Your task to perform on an android device: Go to Yahoo.com Image 0: 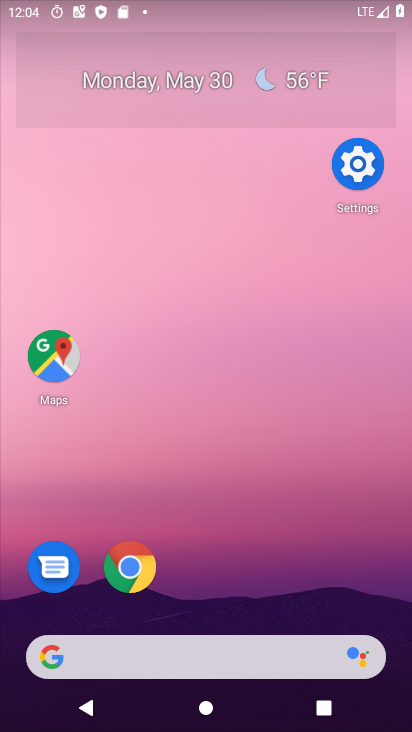
Step 0: drag from (214, 457) to (217, 156)
Your task to perform on an android device: Go to Yahoo.com Image 1: 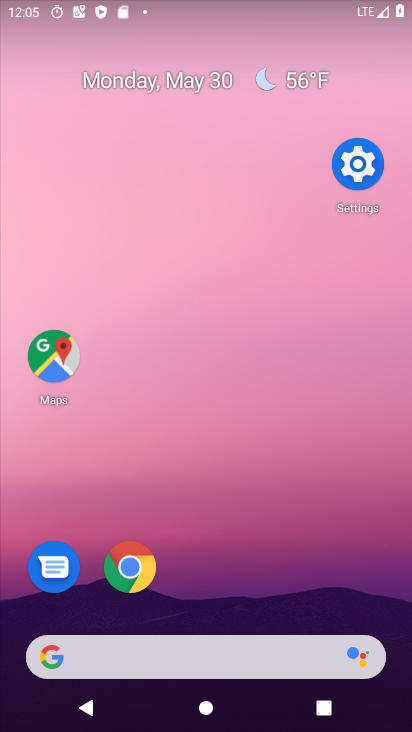
Step 1: drag from (258, 589) to (245, 113)
Your task to perform on an android device: Go to Yahoo.com Image 2: 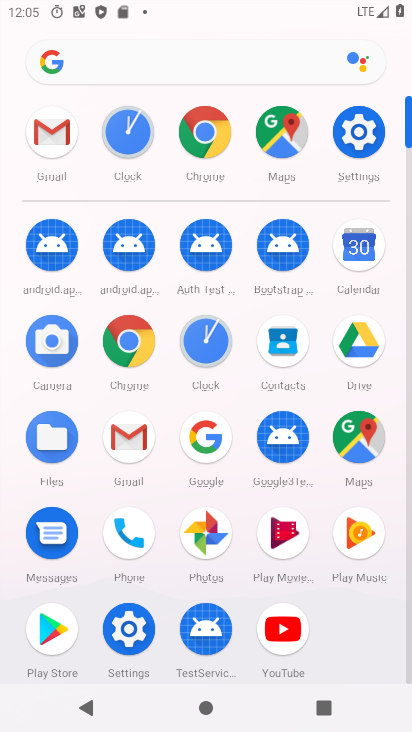
Step 2: click (209, 152)
Your task to perform on an android device: Go to Yahoo.com Image 3: 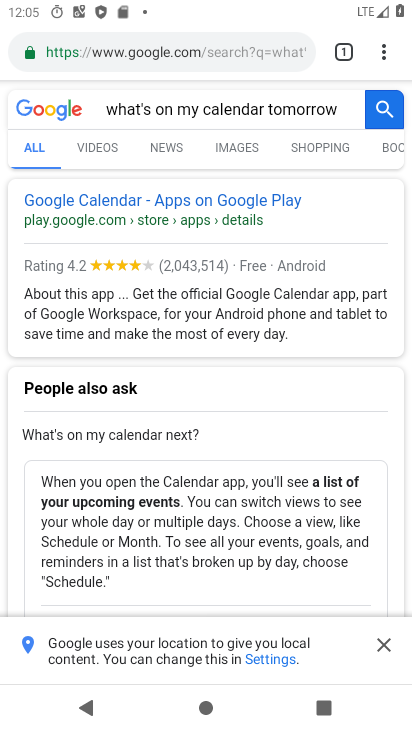
Step 3: click (335, 46)
Your task to perform on an android device: Go to Yahoo.com Image 4: 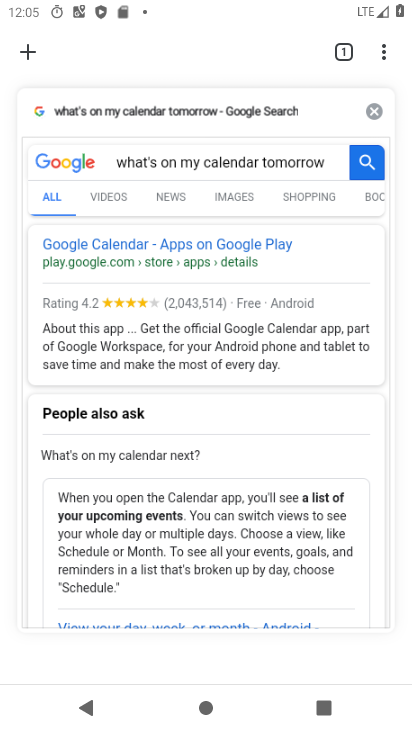
Step 4: click (25, 47)
Your task to perform on an android device: Go to Yahoo.com Image 5: 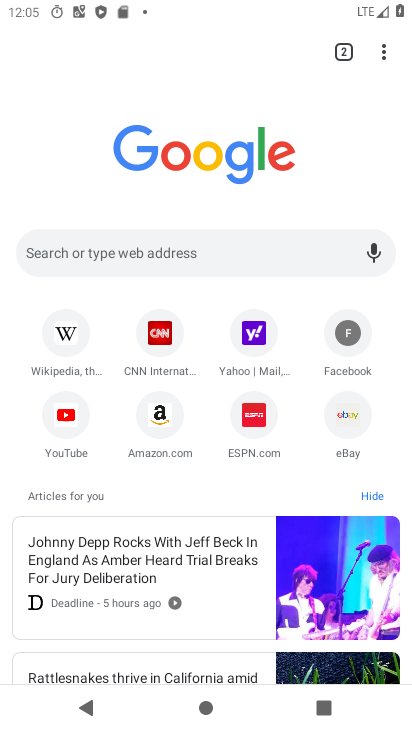
Step 5: click (275, 336)
Your task to perform on an android device: Go to Yahoo.com Image 6: 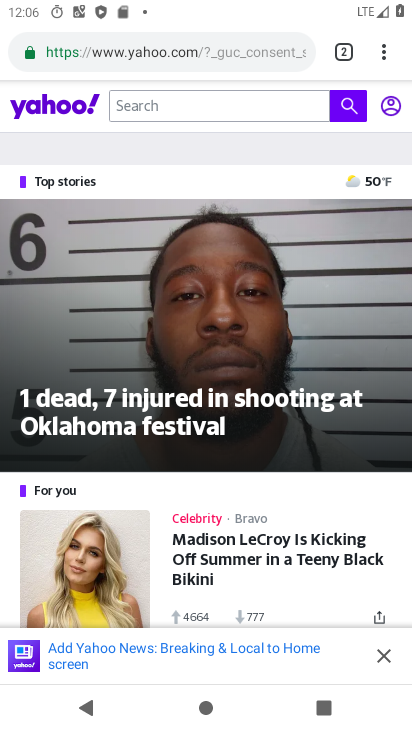
Step 6: task complete